Your task to perform on an android device: set an alarm Image 0: 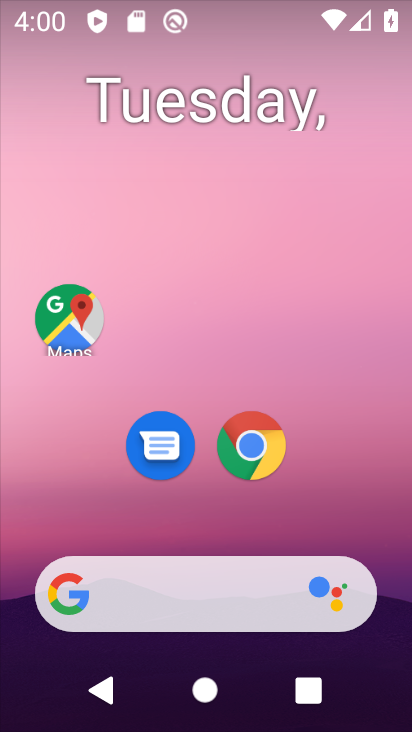
Step 0: click (411, 490)
Your task to perform on an android device: set an alarm Image 1: 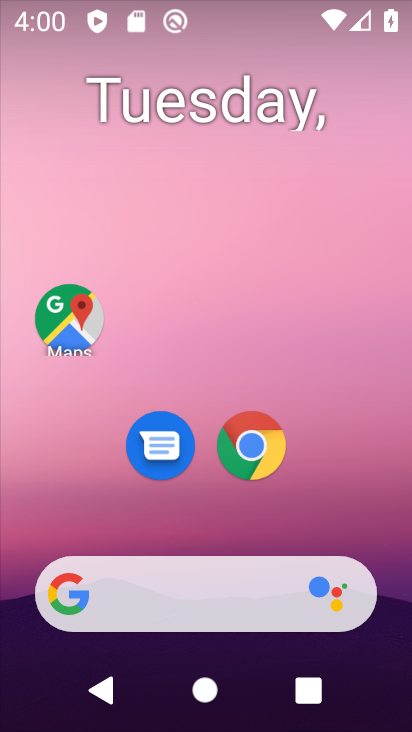
Step 1: drag from (390, 492) to (411, 115)
Your task to perform on an android device: set an alarm Image 2: 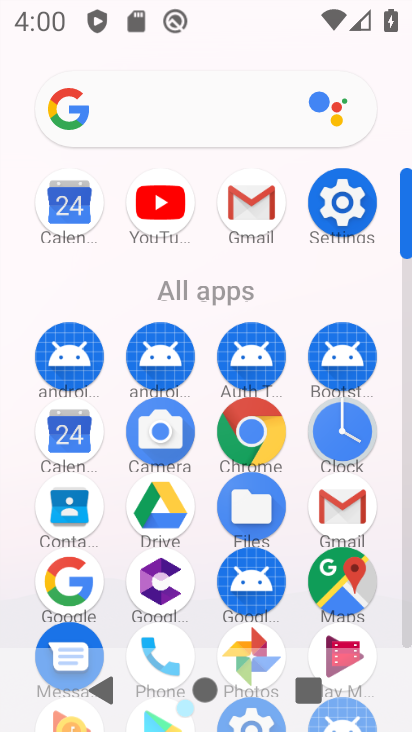
Step 2: click (326, 439)
Your task to perform on an android device: set an alarm Image 3: 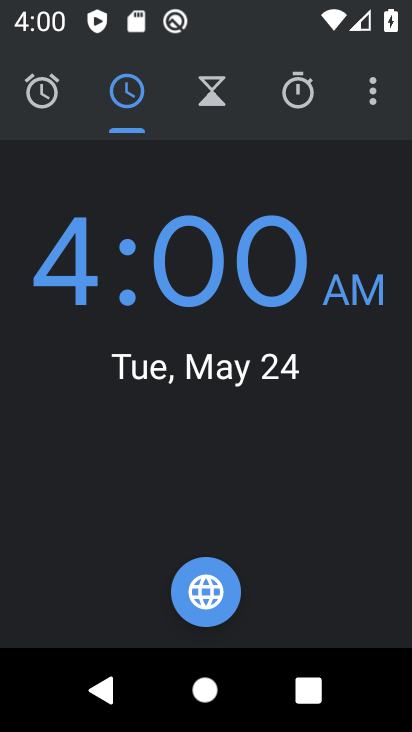
Step 3: click (61, 105)
Your task to perform on an android device: set an alarm Image 4: 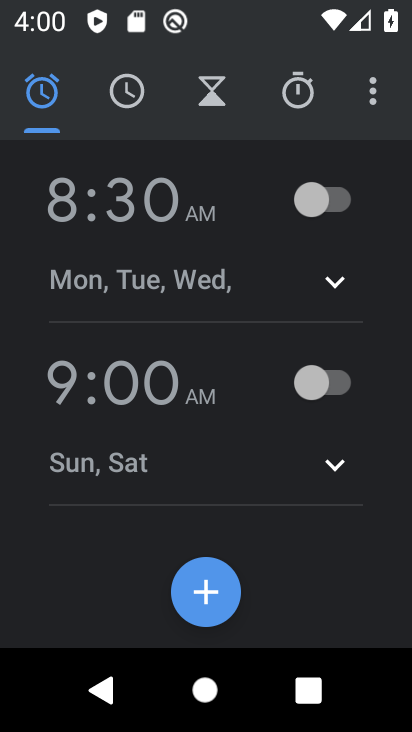
Step 4: click (321, 204)
Your task to perform on an android device: set an alarm Image 5: 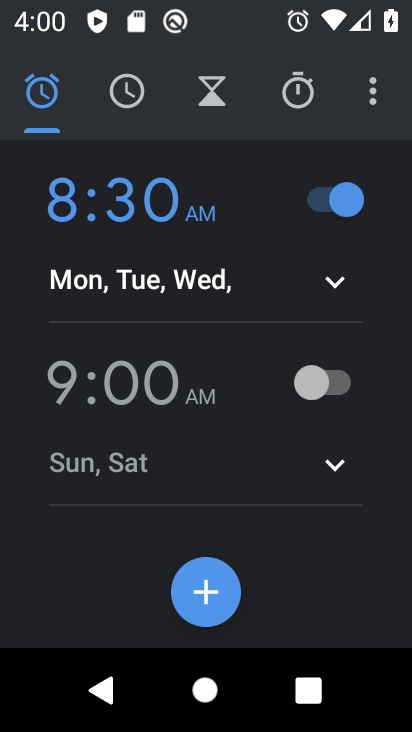
Step 5: task complete